Your task to perform on an android device: turn on location history Image 0: 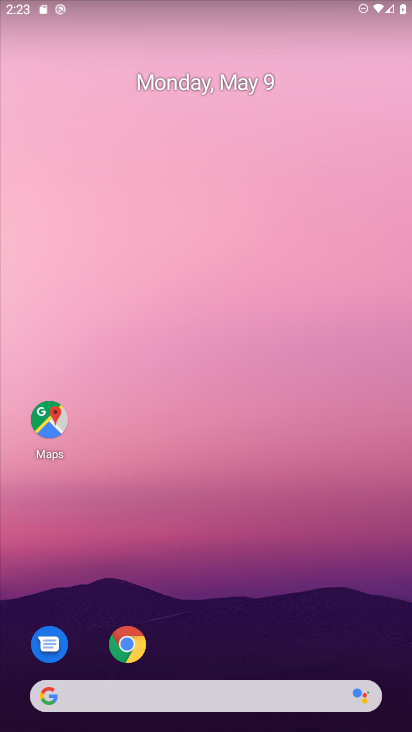
Step 0: drag from (228, 540) to (261, 252)
Your task to perform on an android device: turn on location history Image 1: 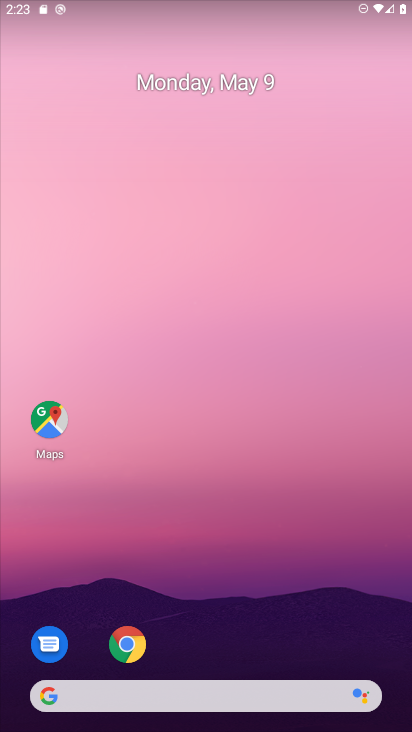
Step 1: drag from (216, 360) to (228, 155)
Your task to perform on an android device: turn on location history Image 2: 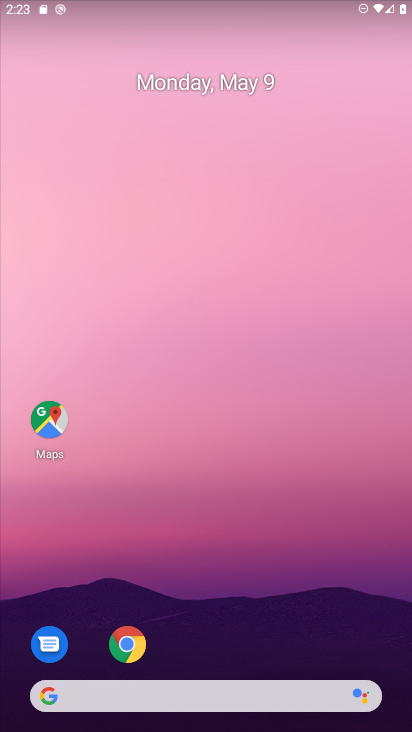
Step 2: drag from (254, 317) to (310, 55)
Your task to perform on an android device: turn on location history Image 3: 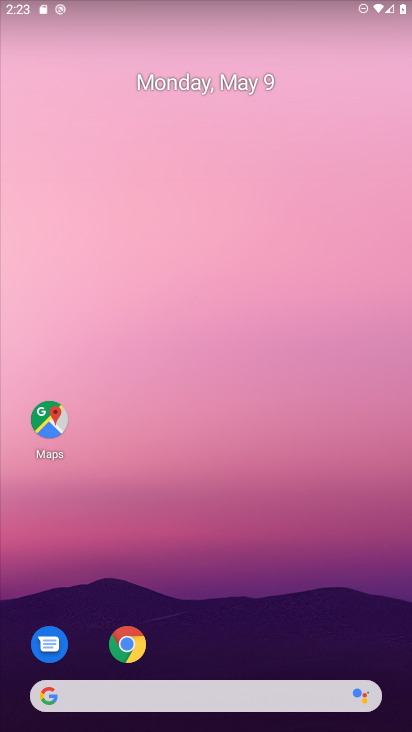
Step 3: drag from (204, 621) to (135, 34)
Your task to perform on an android device: turn on location history Image 4: 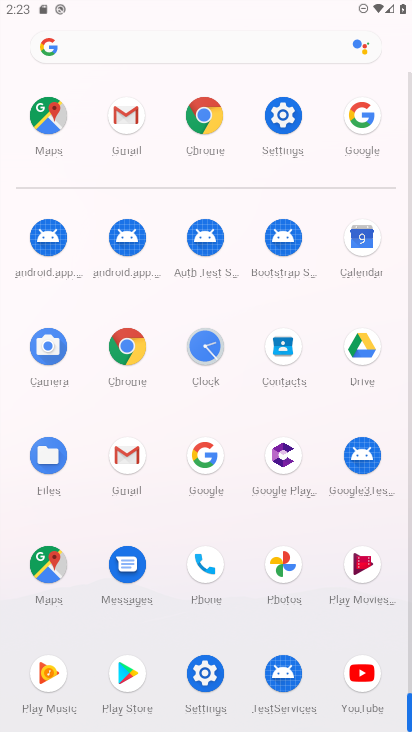
Step 4: click (275, 148)
Your task to perform on an android device: turn on location history Image 5: 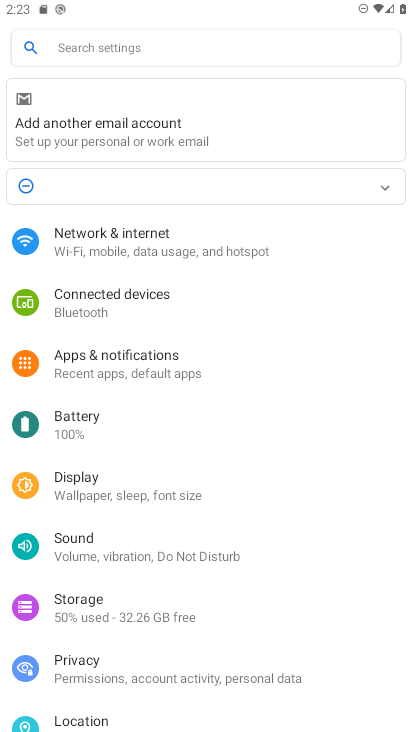
Step 5: click (115, 716)
Your task to perform on an android device: turn on location history Image 6: 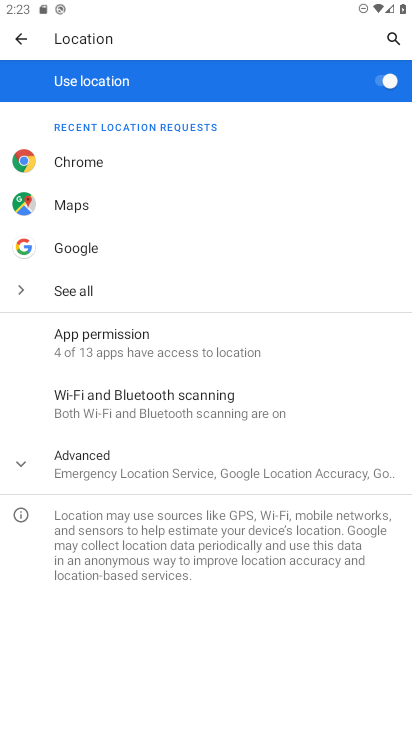
Step 6: click (82, 464)
Your task to perform on an android device: turn on location history Image 7: 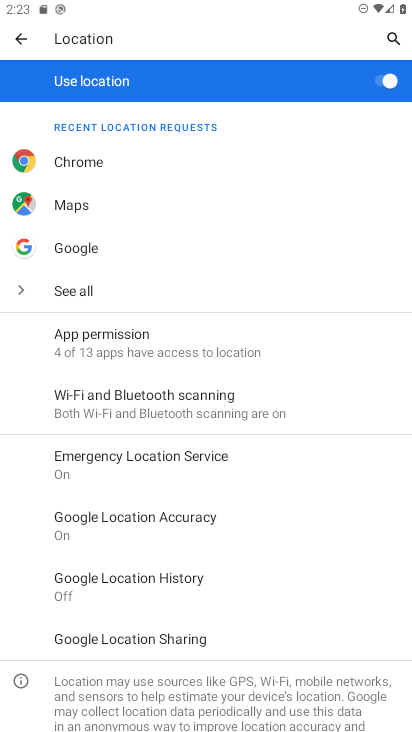
Step 7: click (135, 580)
Your task to perform on an android device: turn on location history Image 8: 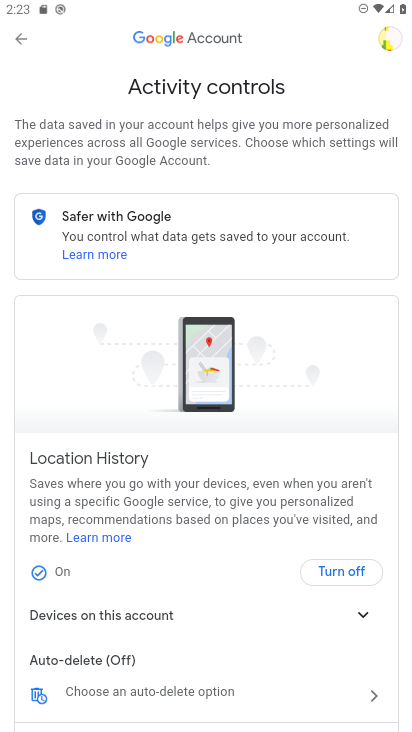
Step 8: task complete